Your task to perform on an android device: Turn off the flashlight Image 0: 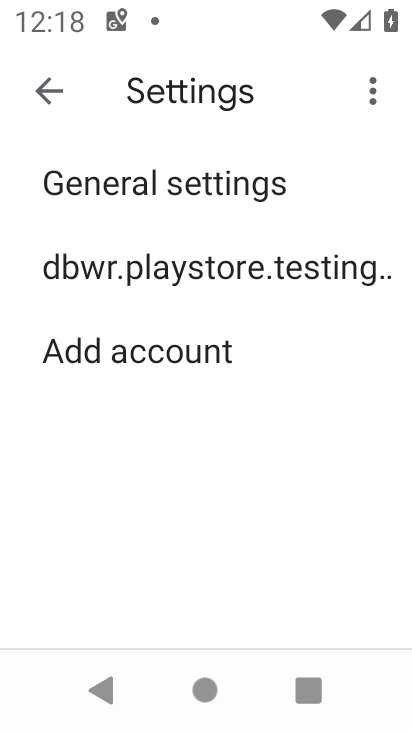
Step 0: press home button
Your task to perform on an android device: Turn off the flashlight Image 1: 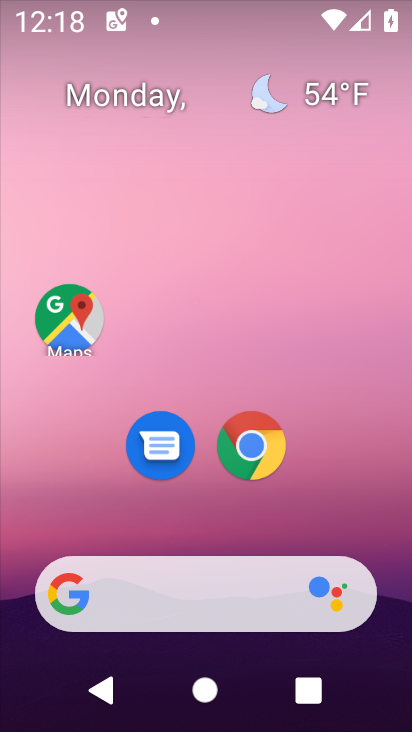
Step 1: drag from (356, 486) to (370, 129)
Your task to perform on an android device: Turn off the flashlight Image 2: 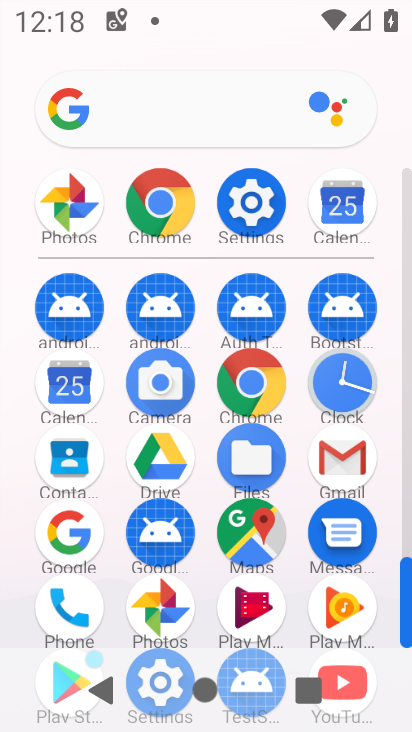
Step 2: click (254, 219)
Your task to perform on an android device: Turn off the flashlight Image 3: 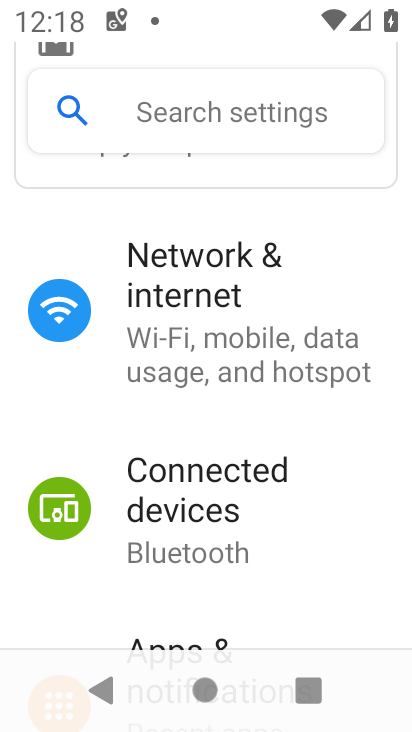
Step 3: click (212, 131)
Your task to perform on an android device: Turn off the flashlight Image 4: 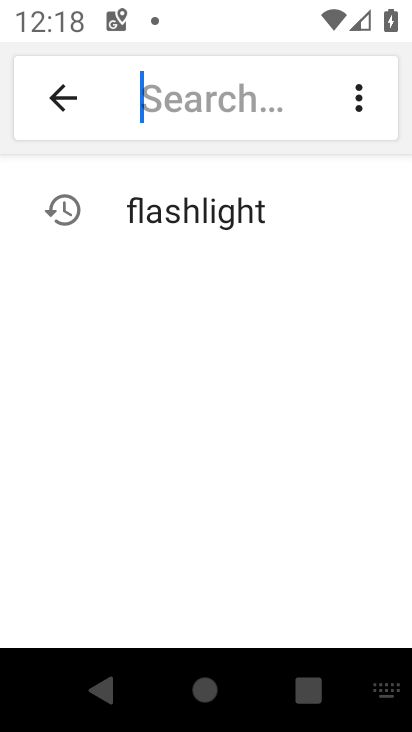
Step 4: click (211, 215)
Your task to perform on an android device: Turn off the flashlight Image 5: 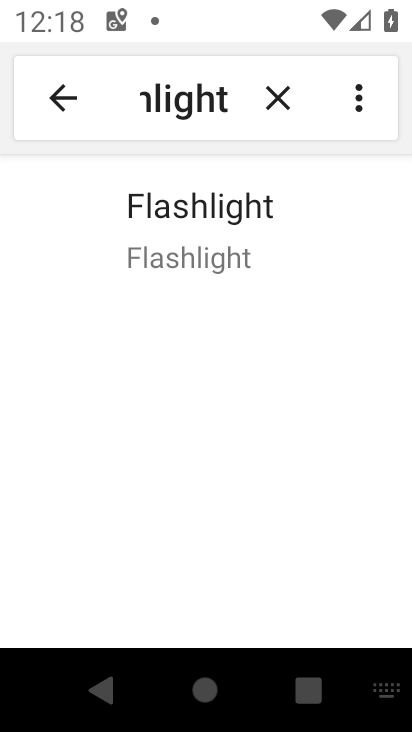
Step 5: click (212, 221)
Your task to perform on an android device: Turn off the flashlight Image 6: 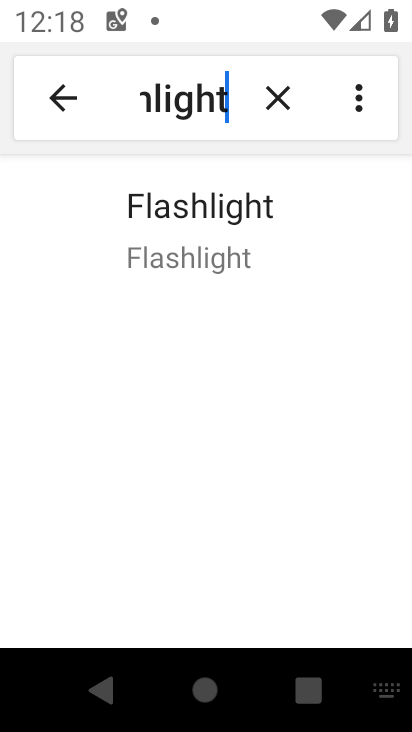
Step 6: task complete